Your task to perform on an android device: Open Chrome and go to the settings page Image 0: 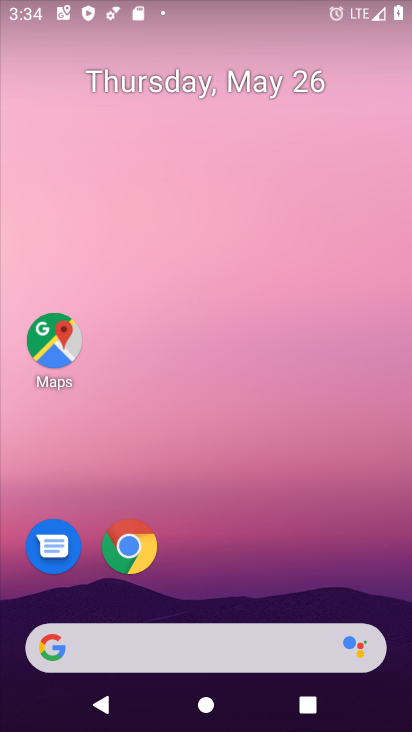
Step 0: click (127, 551)
Your task to perform on an android device: Open Chrome and go to the settings page Image 1: 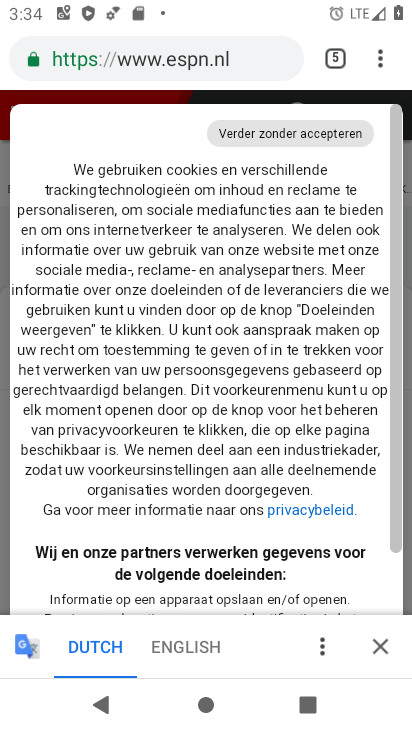
Step 1: task complete